Your task to perform on an android device: Open ESPN.com Image 0: 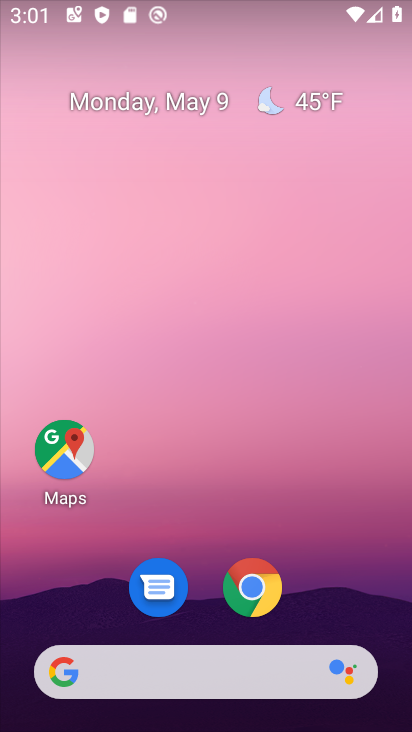
Step 0: click (268, 588)
Your task to perform on an android device: Open ESPN.com Image 1: 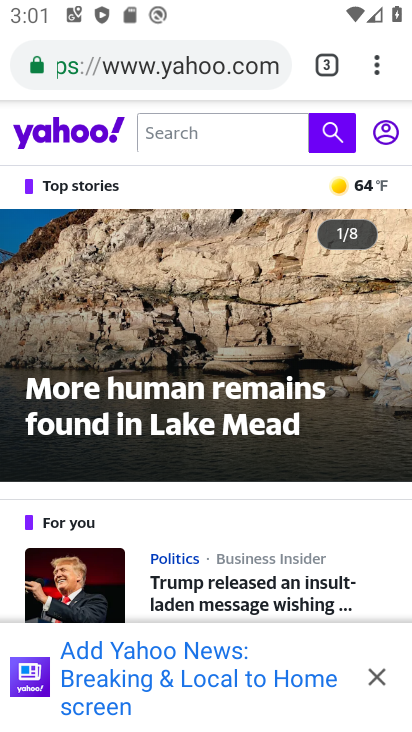
Step 1: click (328, 69)
Your task to perform on an android device: Open ESPN.com Image 2: 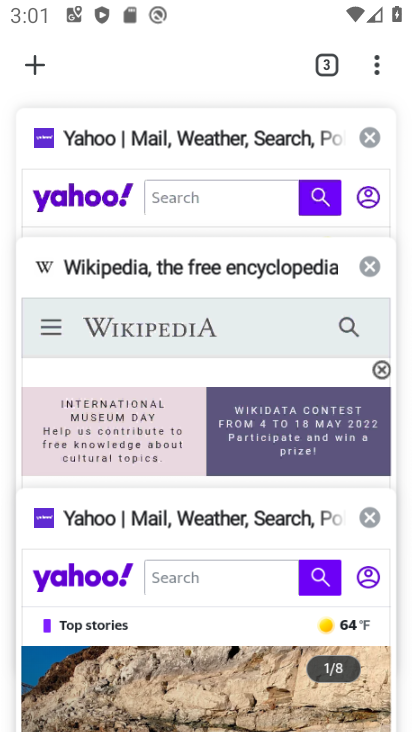
Step 2: click (47, 76)
Your task to perform on an android device: Open ESPN.com Image 3: 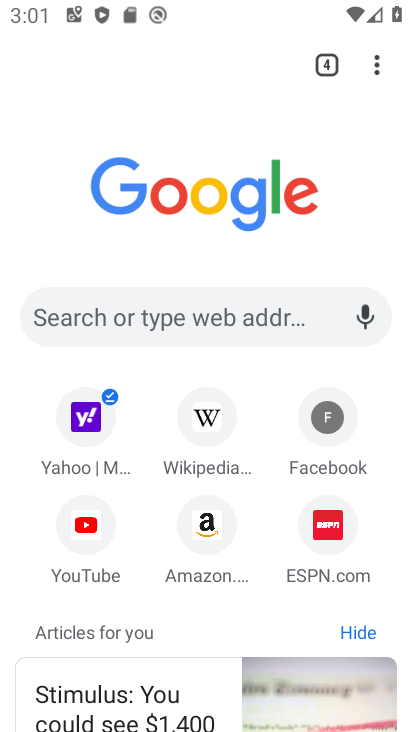
Step 3: click (334, 526)
Your task to perform on an android device: Open ESPN.com Image 4: 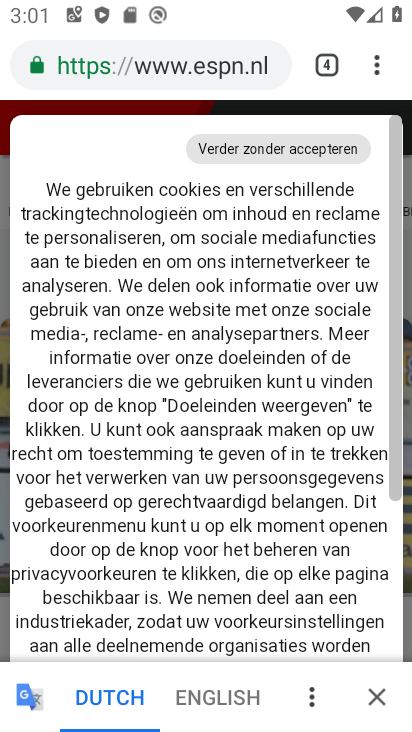
Step 4: task complete